Your task to perform on an android device: find photos in the google photos app Image 0: 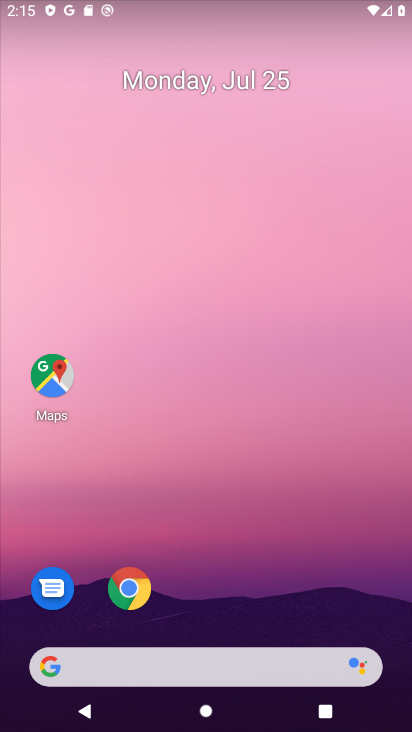
Step 0: drag from (220, 626) to (258, 68)
Your task to perform on an android device: find photos in the google photos app Image 1: 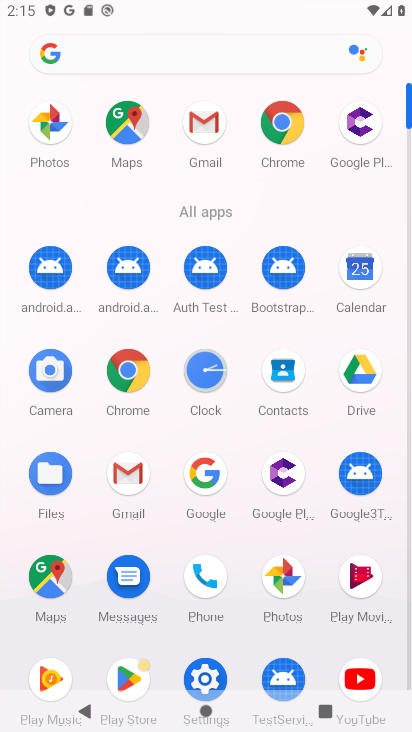
Step 1: click (280, 569)
Your task to perform on an android device: find photos in the google photos app Image 2: 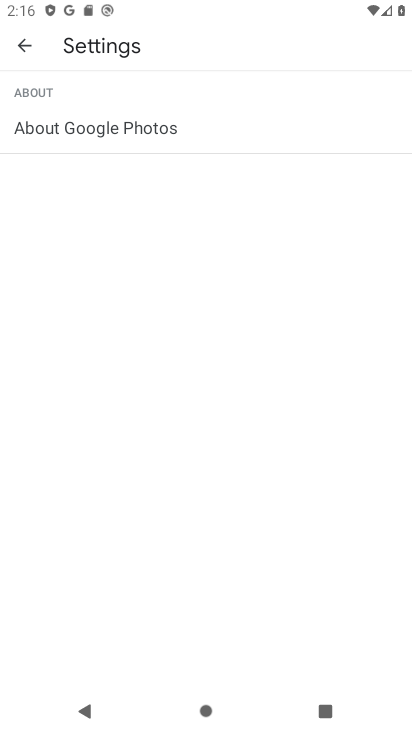
Step 2: click (24, 45)
Your task to perform on an android device: find photos in the google photos app Image 3: 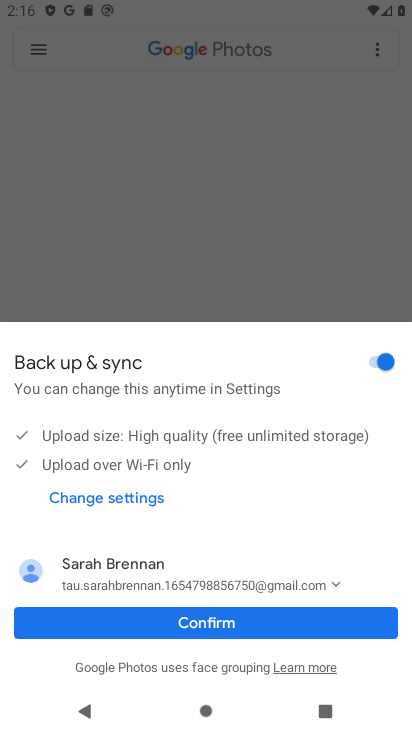
Step 3: click (206, 624)
Your task to perform on an android device: find photos in the google photos app Image 4: 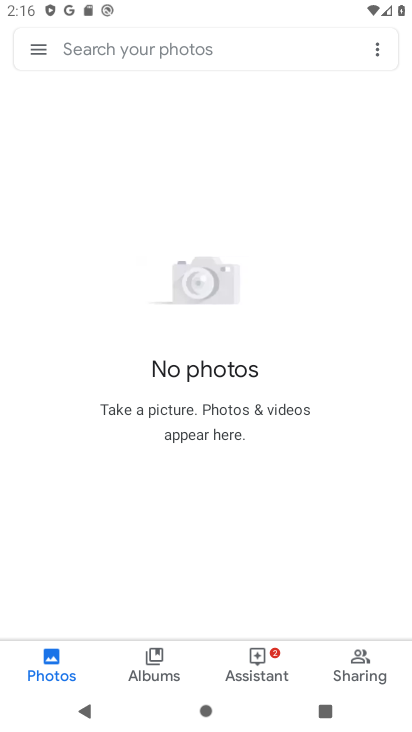
Step 4: click (34, 41)
Your task to perform on an android device: find photos in the google photos app Image 5: 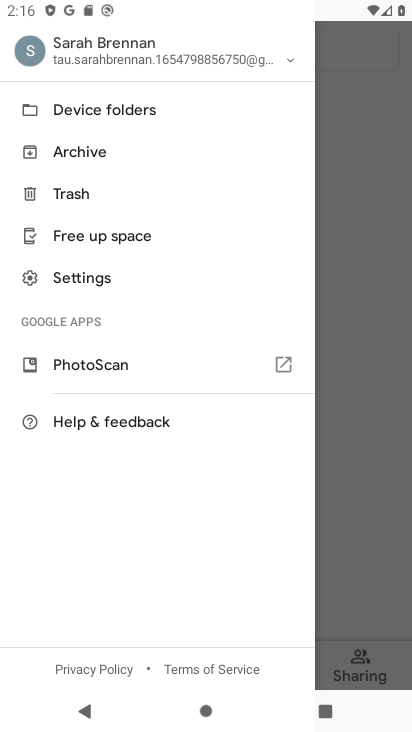
Step 5: click (364, 549)
Your task to perform on an android device: find photos in the google photos app Image 6: 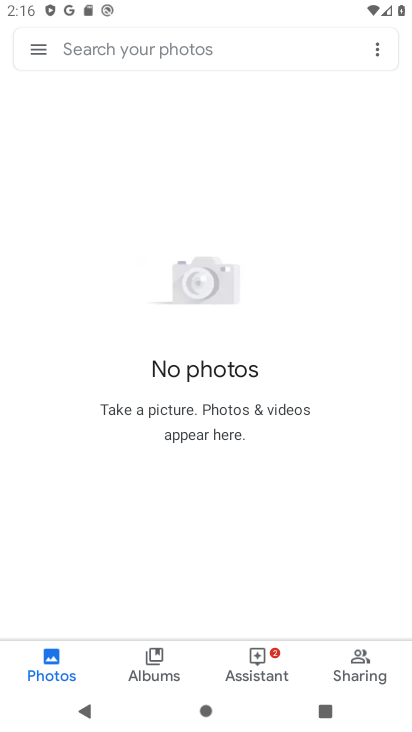
Step 6: click (58, 656)
Your task to perform on an android device: find photos in the google photos app Image 7: 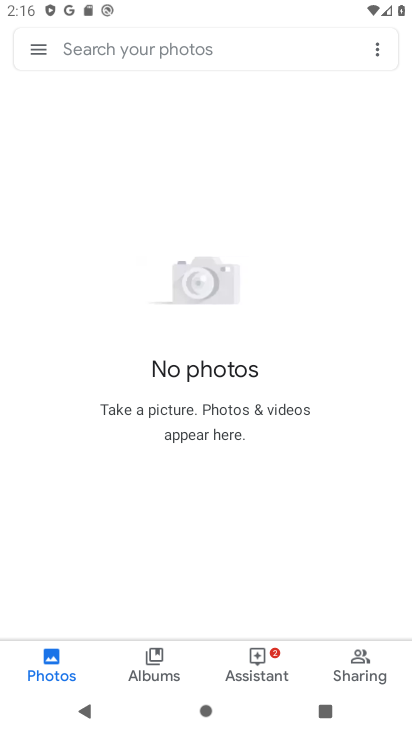
Step 7: task complete